Your task to perform on an android device: open app "Pluto TV - Live TV and Movies" (install if not already installed) Image 0: 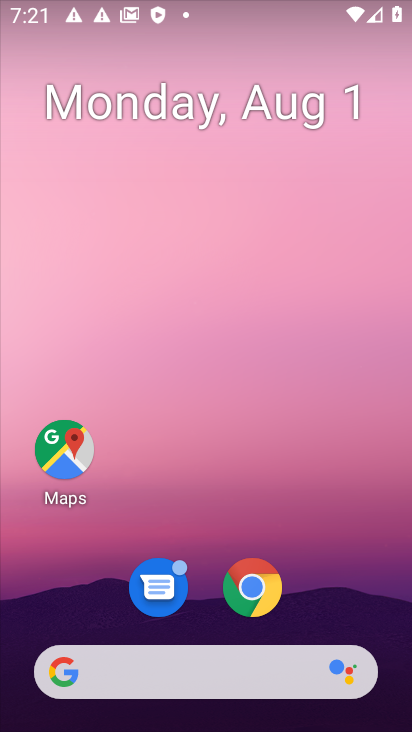
Step 0: drag from (328, 625) to (303, 7)
Your task to perform on an android device: open app "Pluto TV - Live TV and Movies" (install if not already installed) Image 1: 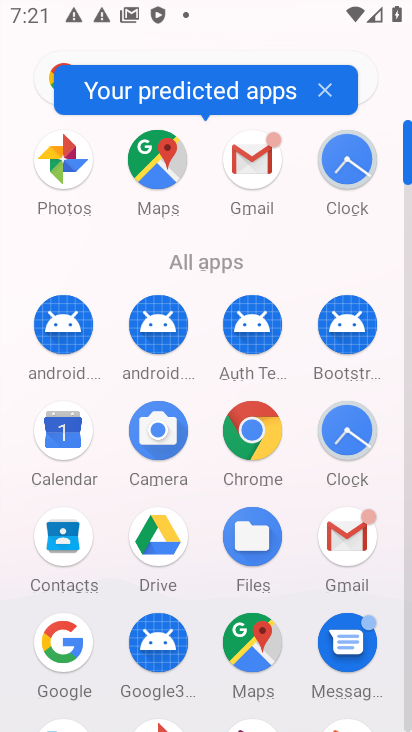
Step 1: click (208, 563)
Your task to perform on an android device: open app "Pluto TV - Live TV and Movies" (install if not already installed) Image 2: 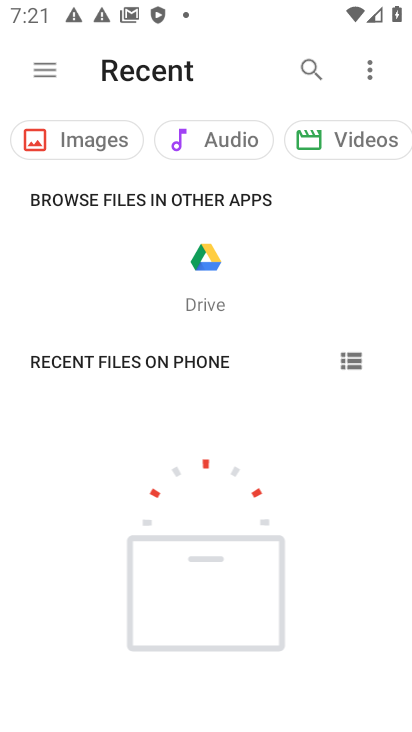
Step 2: press home button
Your task to perform on an android device: open app "Pluto TV - Live TV and Movies" (install if not already installed) Image 3: 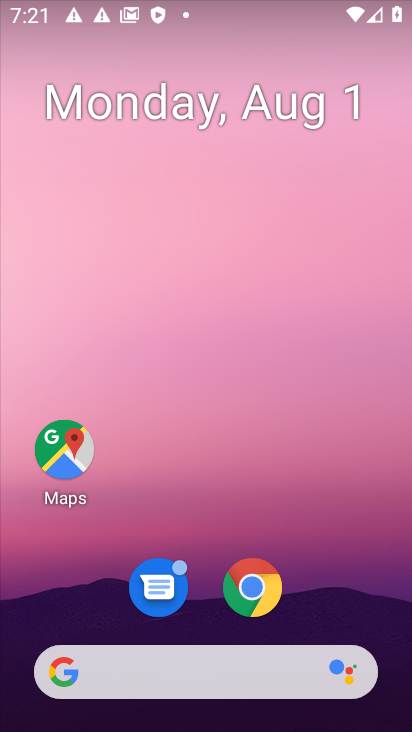
Step 3: drag from (200, 628) to (238, 53)
Your task to perform on an android device: open app "Pluto TV - Live TV and Movies" (install if not already installed) Image 4: 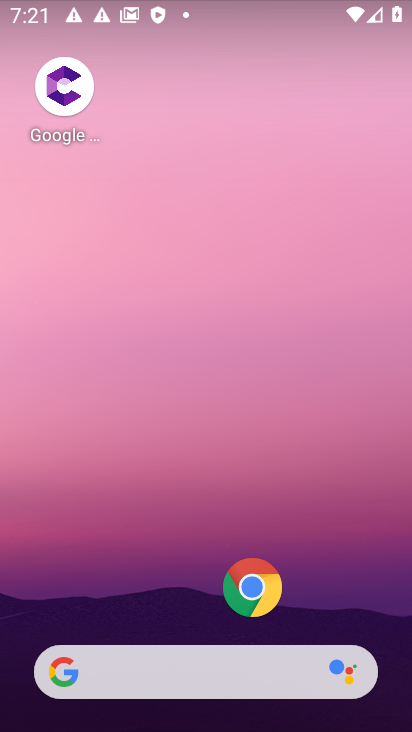
Step 4: drag from (168, 592) to (199, 18)
Your task to perform on an android device: open app "Pluto TV - Live TV and Movies" (install if not already installed) Image 5: 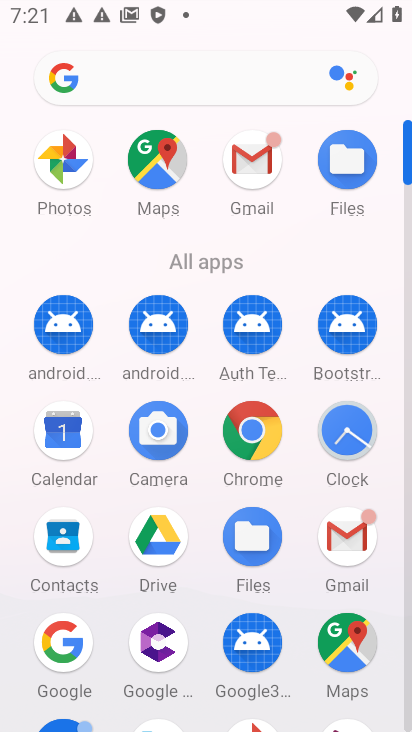
Step 5: click (406, 702)
Your task to perform on an android device: open app "Pluto TV - Live TV and Movies" (install if not already installed) Image 6: 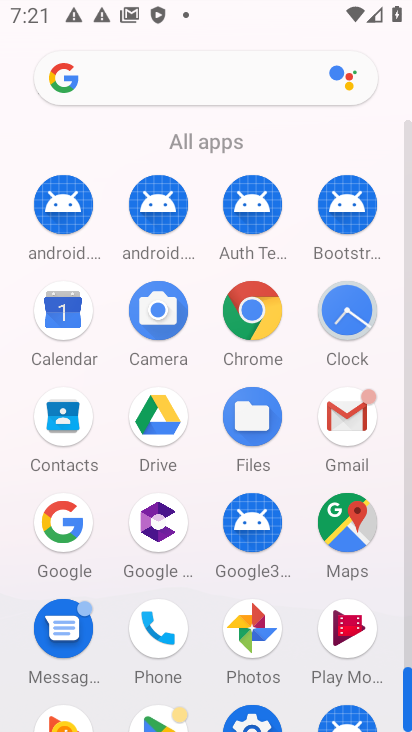
Step 6: click (178, 711)
Your task to perform on an android device: open app "Pluto TV - Live TV and Movies" (install if not already installed) Image 7: 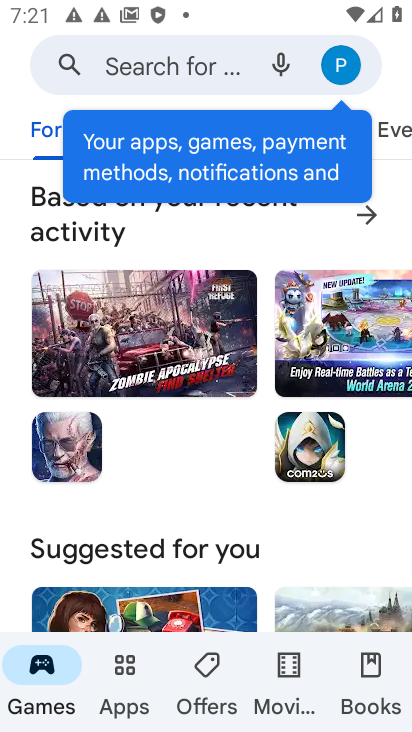
Step 7: click (208, 52)
Your task to perform on an android device: open app "Pluto TV - Live TV and Movies" (install if not already installed) Image 8: 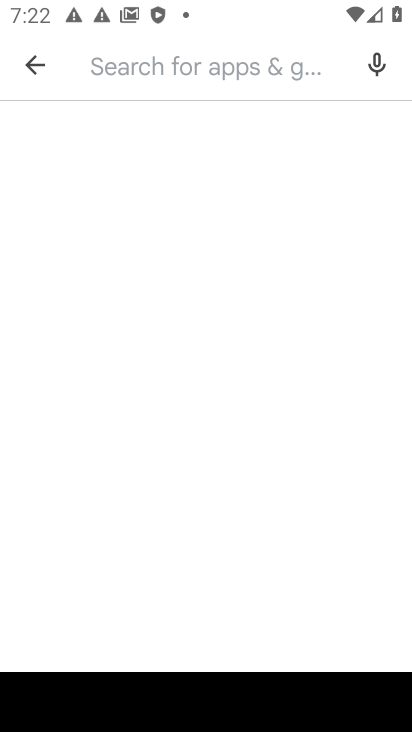
Step 8: type "pluto tv"
Your task to perform on an android device: open app "Pluto TV - Live TV and Movies" (install if not already installed) Image 9: 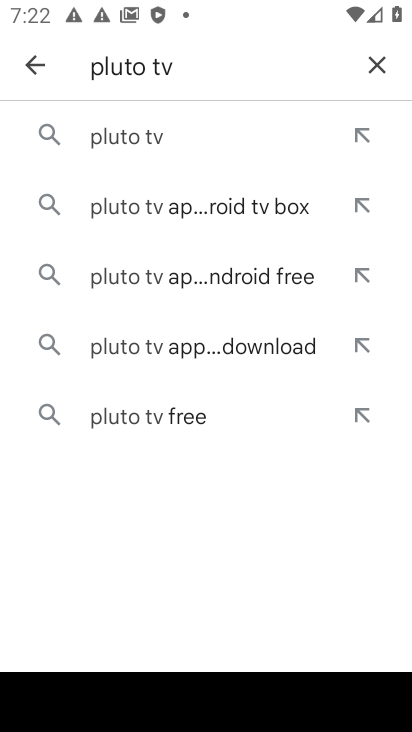
Step 9: click (221, 141)
Your task to perform on an android device: open app "Pluto TV - Live TV and Movies" (install if not already installed) Image 10: 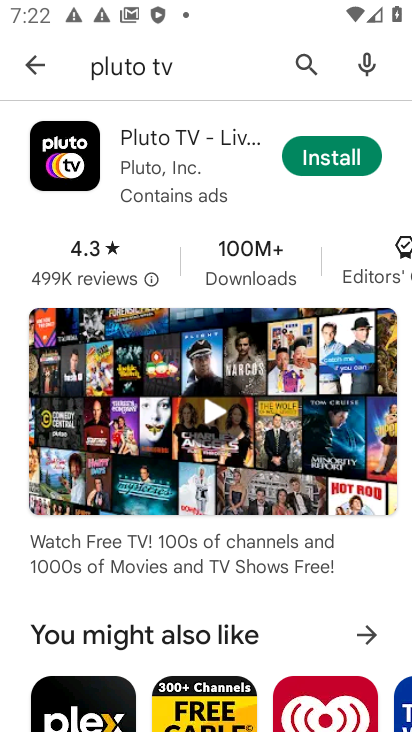
Step 10: click (297, 144)
Your task to perform on an android device: open app "Pluto TV - Live TV and Movies" (install if not already installed) Image 11: 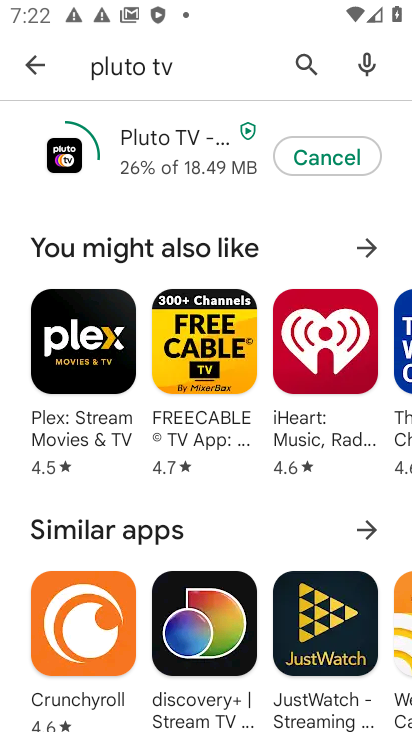
Step 11: drag from (247, 7) to (222, 478)
Your task to perform on an android device: open app "Pluto TV - Live TV and Movies" (install if not already installed) Image 12: 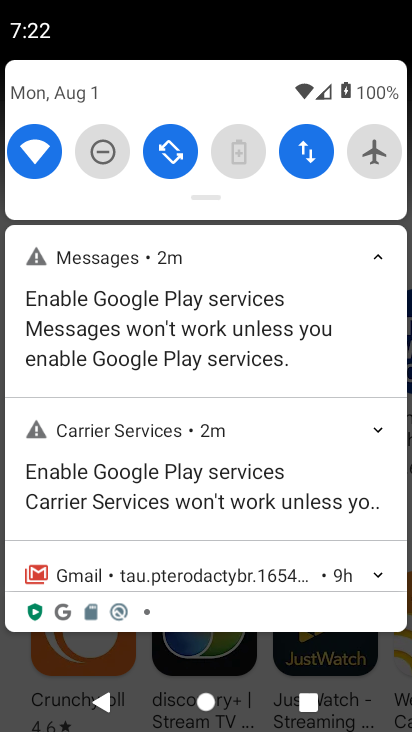
Step 12: drag from (268, 476) to (307, 262)
Your task to perform on an android device: open app "Pluto TV - Live TV and Movies" (install if not already installed) Image 13: 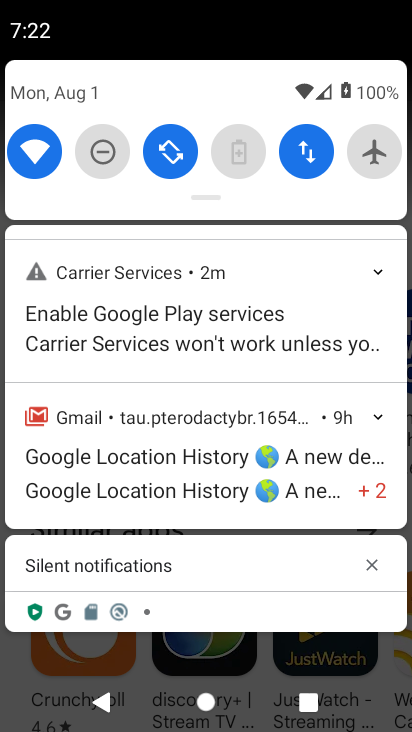
Step 13: click (370, 569)
Your task to perform on an android device: open app "Pluto TV - Live TV and Movies" (install if not already installed) Image 14: 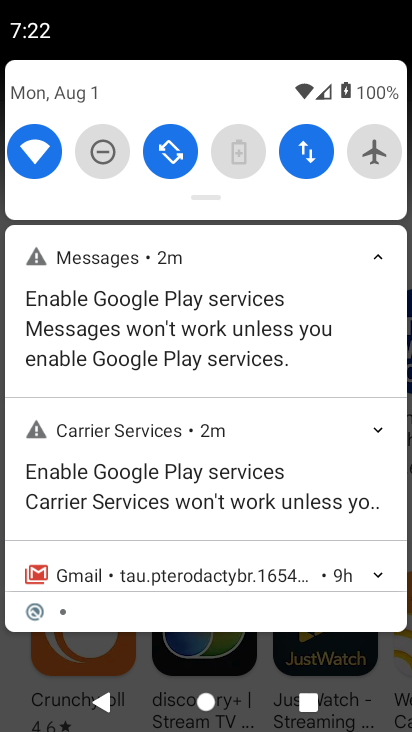
Step 14: drag from (370, 569) to (341, 149)
Your task to perform on an android device: open app "Pluto TV - Live TV and Movies" (install if not already installed) Image 15: 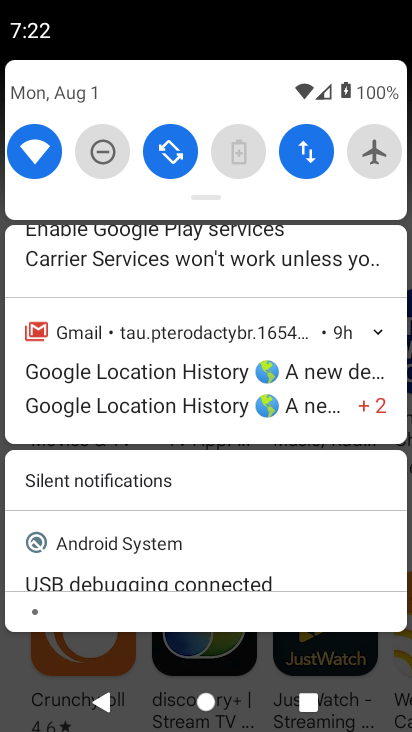
Step 15: drag from (290, 545) to (354, 160)
Your task to perform on an android device: open app "Pluto TV - Live TV and Movies" (install if not already installed) Image 16: 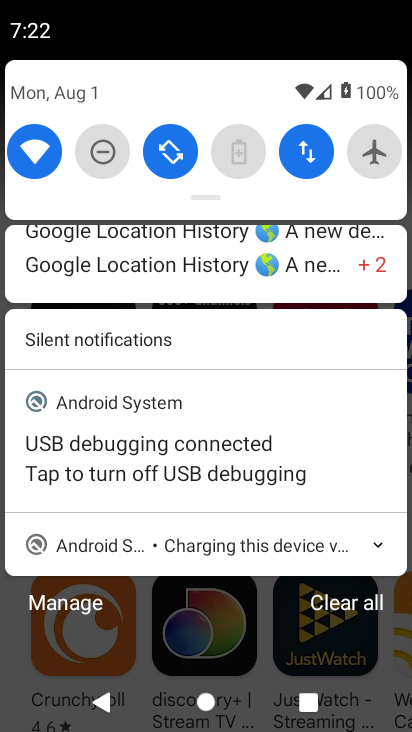
Step 16: click (339, 604)
Your task to perform on an android device: open app "Pluto TV - Live TV and Movies" (install if not already installed) Image 17: 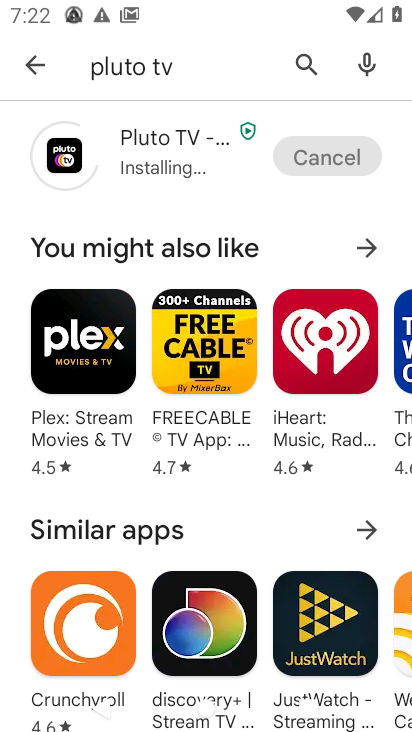
Step 17: task complete